Your task to perform on an android device: Open Youtube and go to the subscriptions tab Image 0: 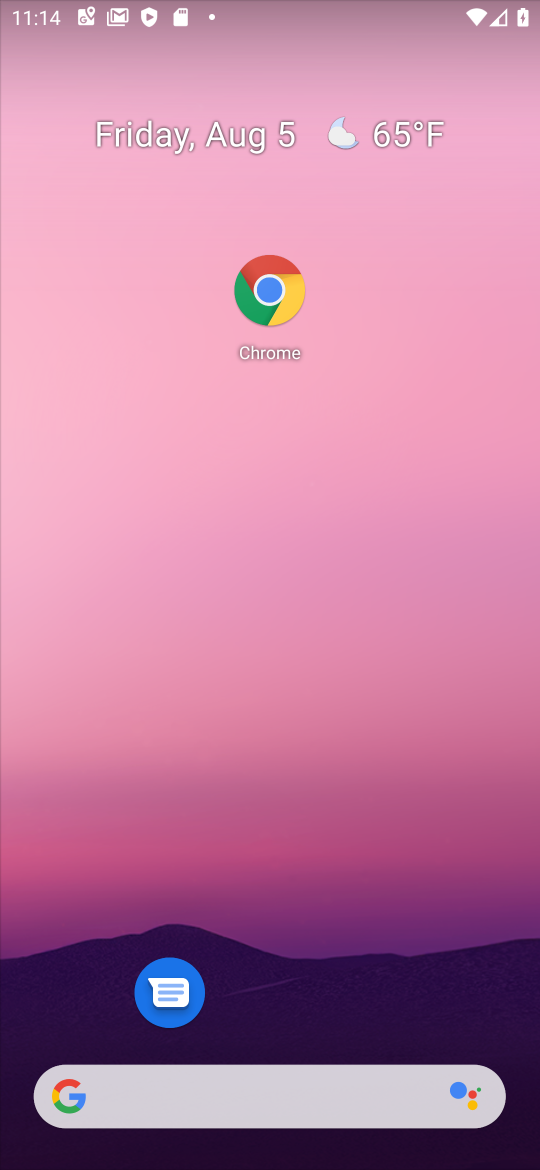
Step 0: drag from (400, 908) to (349, 127)
Your task to perform on an android device: Open Youtube and go to the subscriptions tab Image 1: 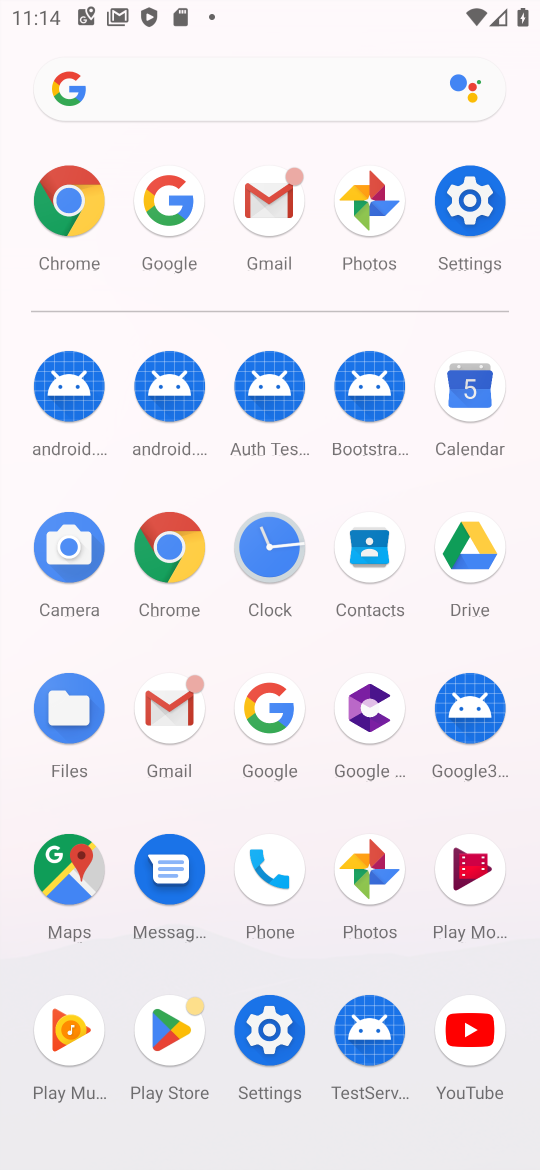
Step 1: click (468, 1049)
Your task to perform on an android device: Open Youtube and go to the subscriptions tab Image 2: 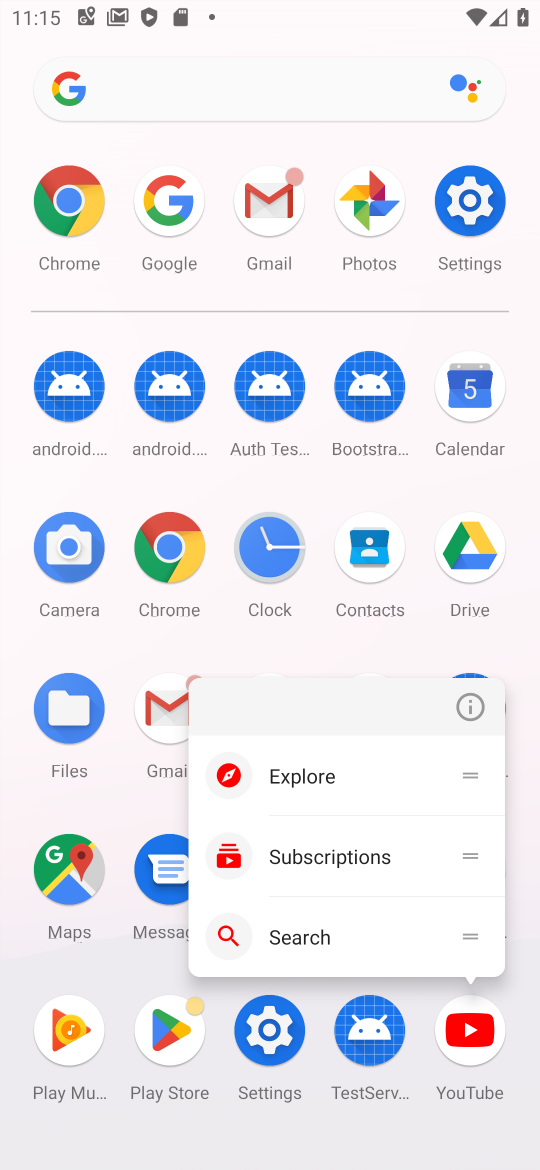
Step 2: click (469, 1047)
Your task to perform on an android device: Open Youtube and go to the subscriptions tab Image 3: 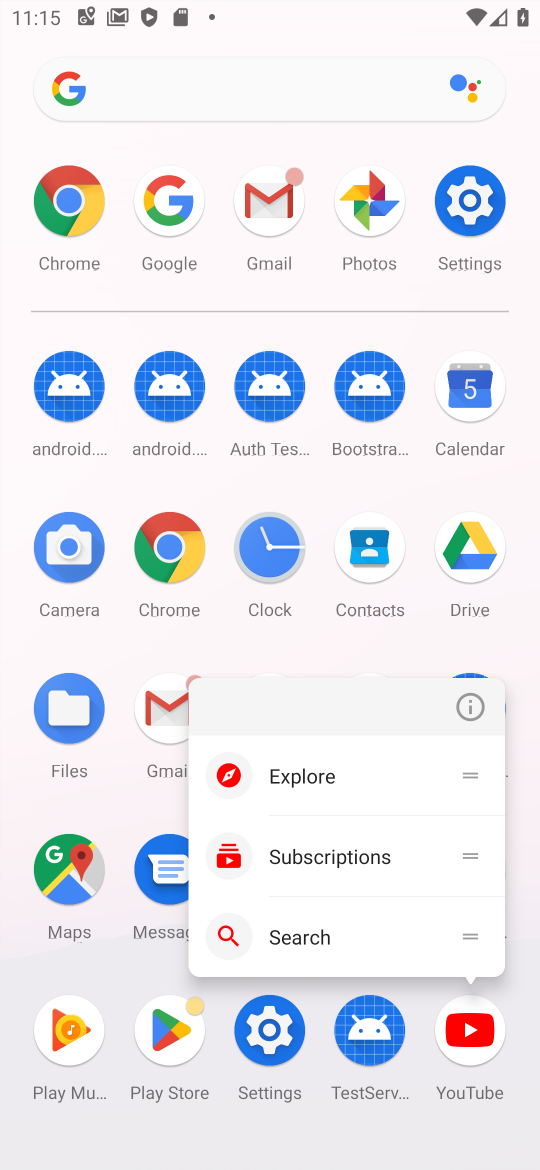
Step 3: click (464, 1040)
Your task to perform on an android device: Open Youtube and go to the subscriptions tab Image 4: 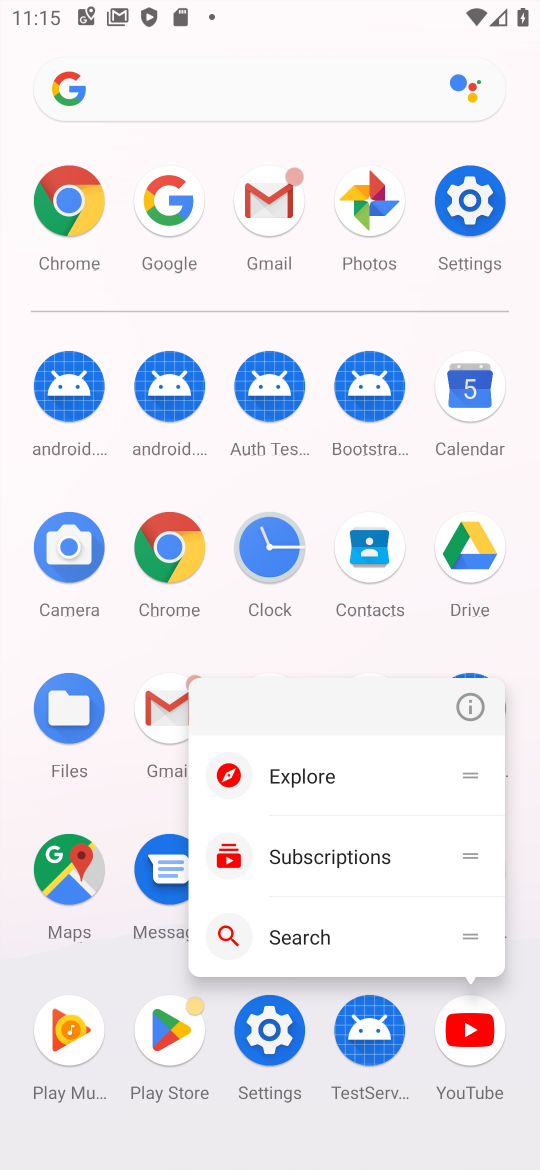
Step 4: click (462, 1036)
Your task to perform on an android device: Open Youtube and go to the subscriptions tab Image 5: 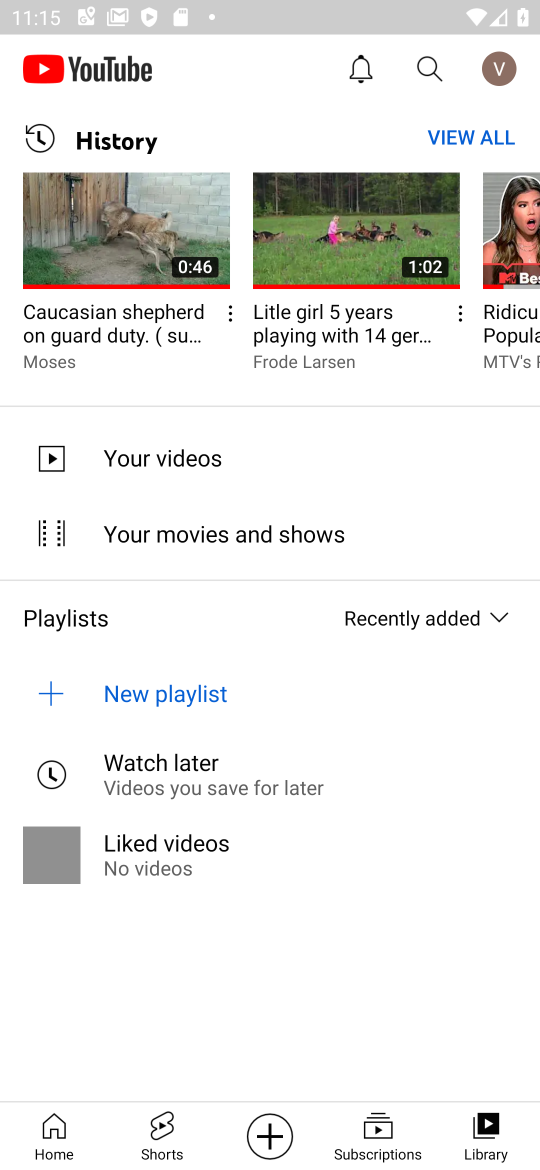
Step 5: click (460, 1034)
Your task to perform on an android device: Open Youtube and go to the subscriptions tab Image 6: 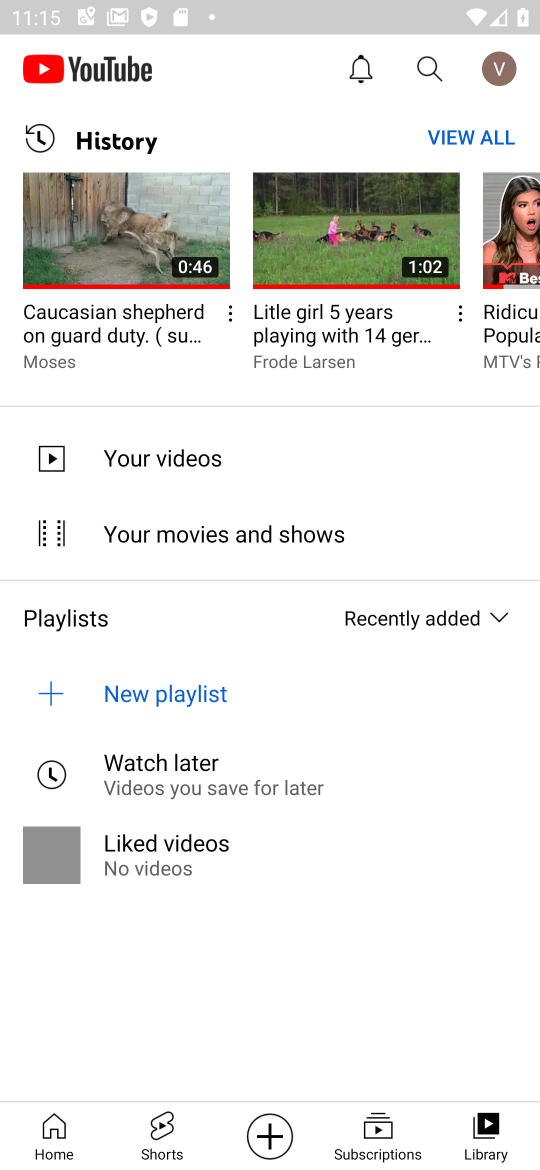
Step 6: click (377, 1148)
Your task to perform on an android device: Open Youtube and go to the subscriptions tab Image 7: 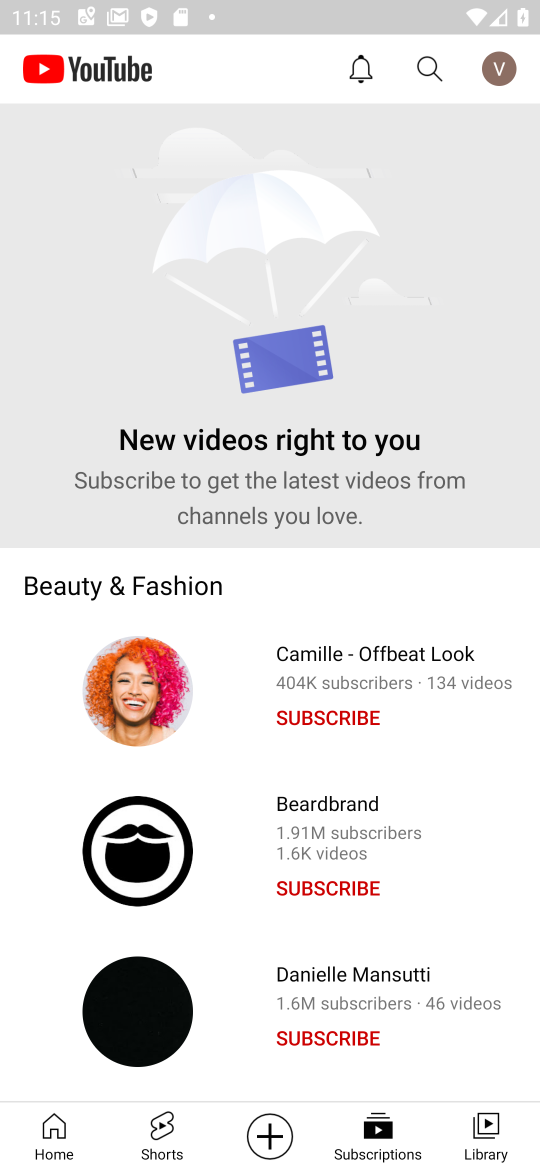
Step 7: task complete